Your task to perform on an android device: Go to ESPN.com Image 0: 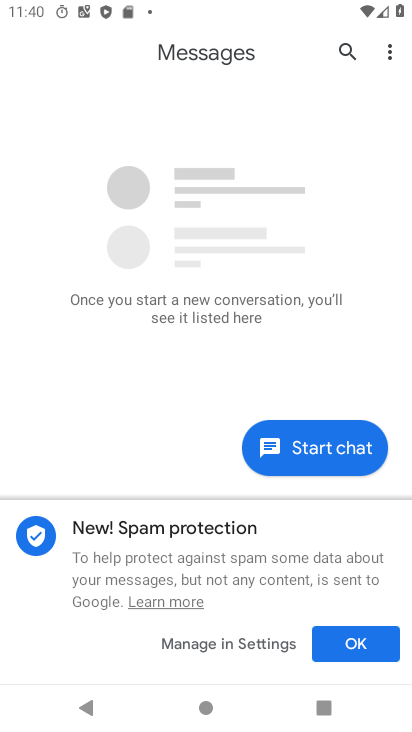
Step 0: press home button
Your task to perform on an android device: Go to ESPN.com Image 1: 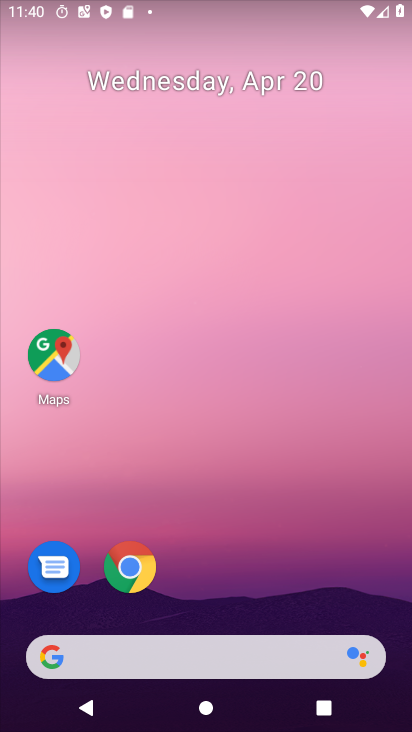
Step 1: click (150, 572)
Your task to perform on an android device: Go to ESPN.com Image 2: 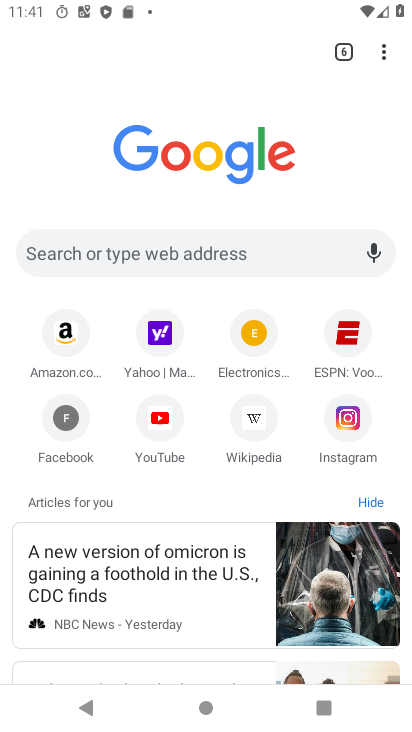
Step 2: click (101, 256)
Your task to perform on an android device: Go to ESPN.com Image 3: 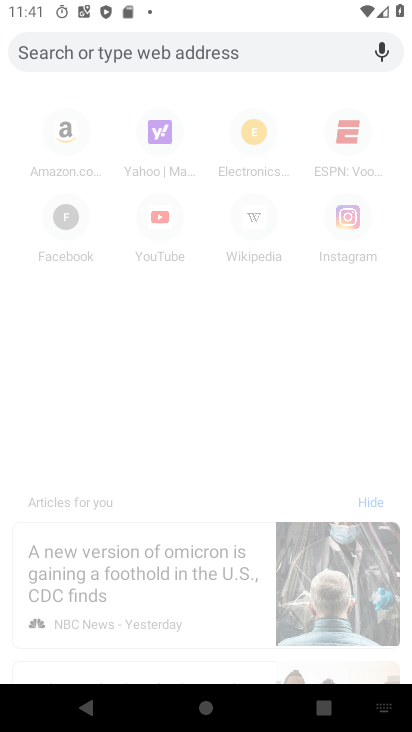
Step 3: type "espn.com"
Your task to perform on an android device: Go to ESPN.com Image 4: 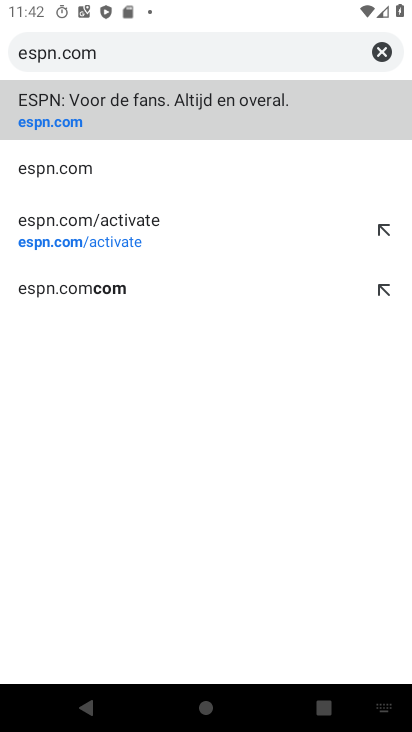
Step 4: click (110, 121)
Your task to perform on an android device: Go to ESPN.com Image 5: 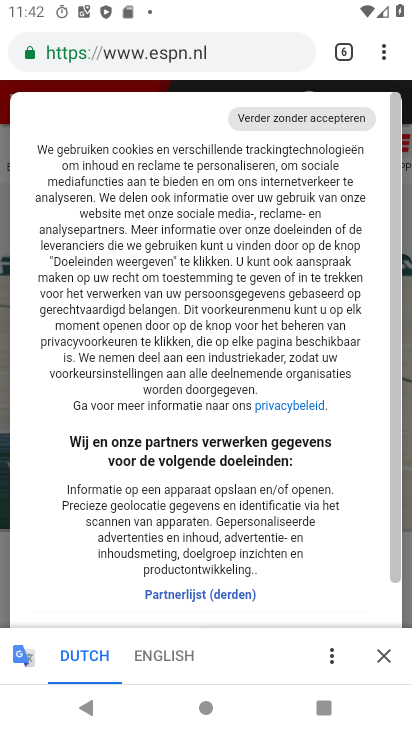
Step 5: task complete